Your task to perform on an android device: turn on the 24-hour format for clock Image 0: 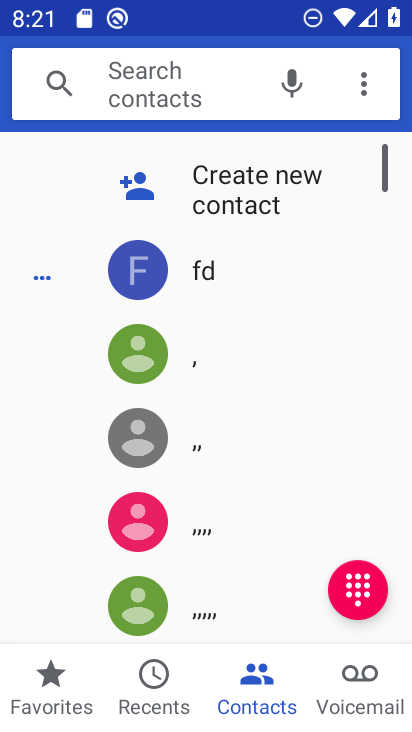
Step 0: press home button
Your task to perform on an android device: turn on the 24-hour format for clock Image 1: 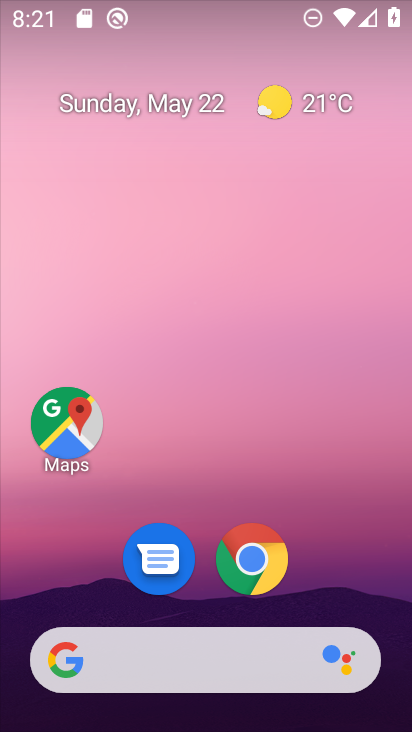
Step 1: drag from (219, 676) to (184, 145)
Your task to perform on an android device: turn on the 24-hour format for clock Image 2: 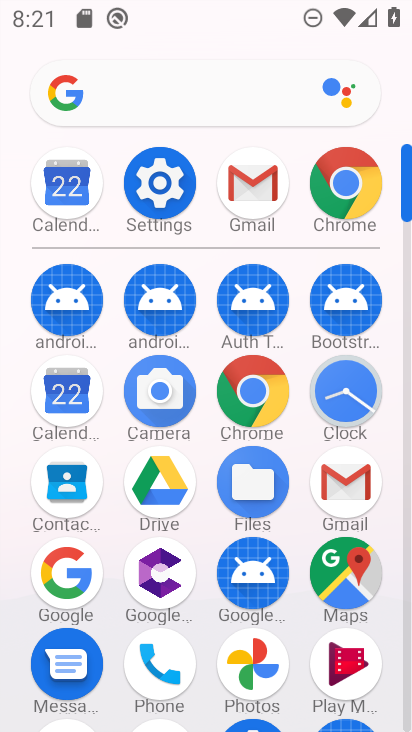
Step 2: click (339, 397)
Your task to perform on an android device: turn on the 24-hour format for clock Image 3: 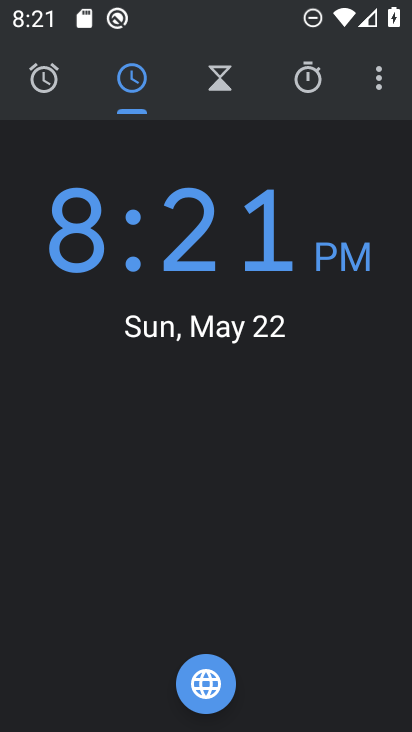
Step 3: click (378, 93)
Your task to perform on an android device: turn on the 24-hour format for clock Image 4: 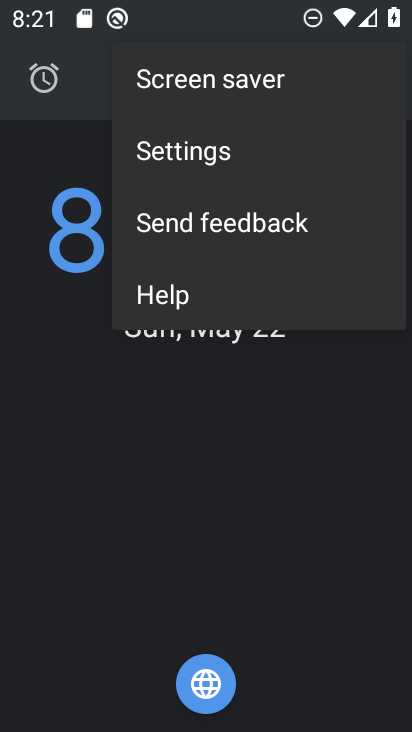
Step 4: click (246, 154)
Your task to perform on an android device: turn on the 24-hour format for clock Image 5: 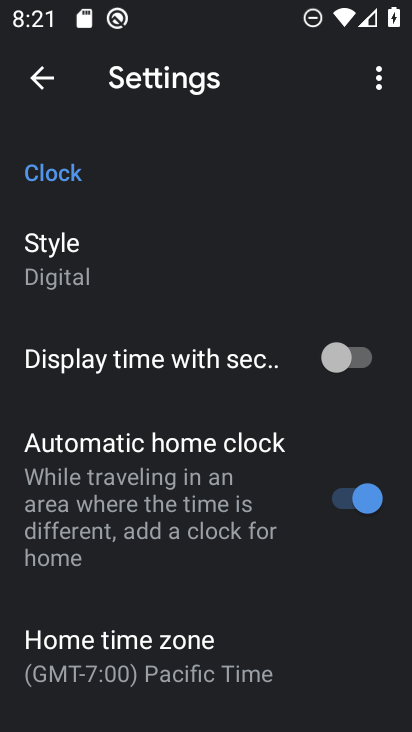
Step 5: drag from (182, 636) to (176, 367)
Your task to perform on an android device: turn on the 24-hour format for clock Image 6: 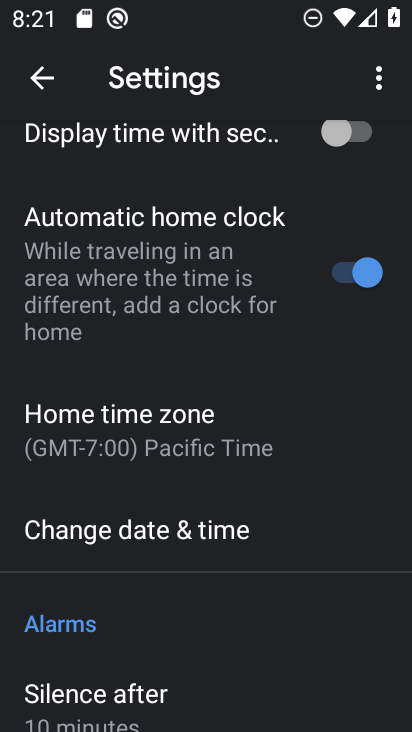
Step 6: click (181, 524)
Your task to perform on an android device: turn on the 24-hour format for clock Image 7: 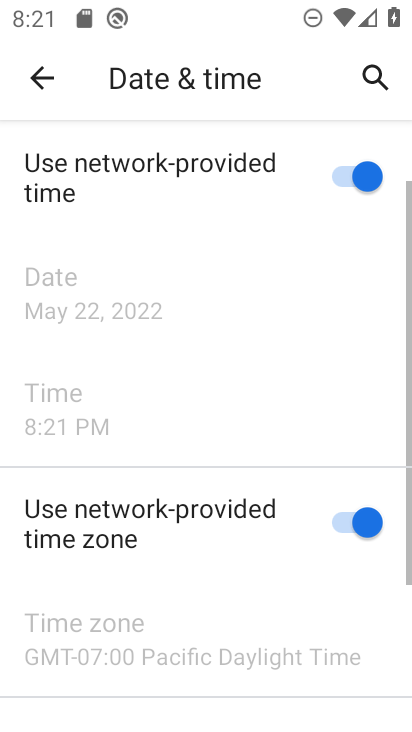
Step 7: drag from (191, 485) to (176, 260)
Your task to perform on an android device: turn on the 24-hour format for clock Image 8: 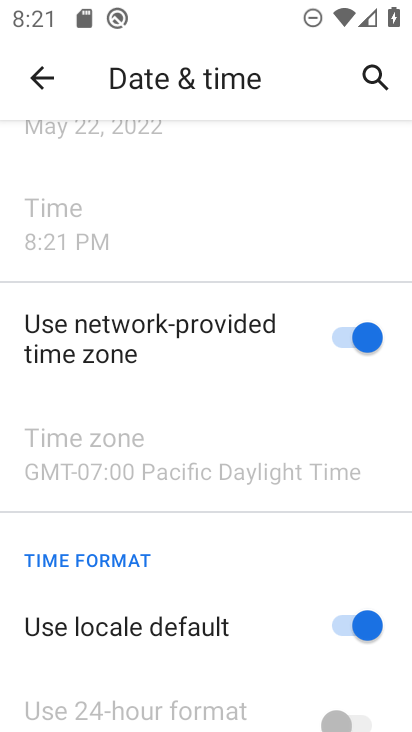
Step 8: drag from (195, 577) to (210, 396)
Your task to perform on an android device: turn on the 24-hour format for clock Image 9: 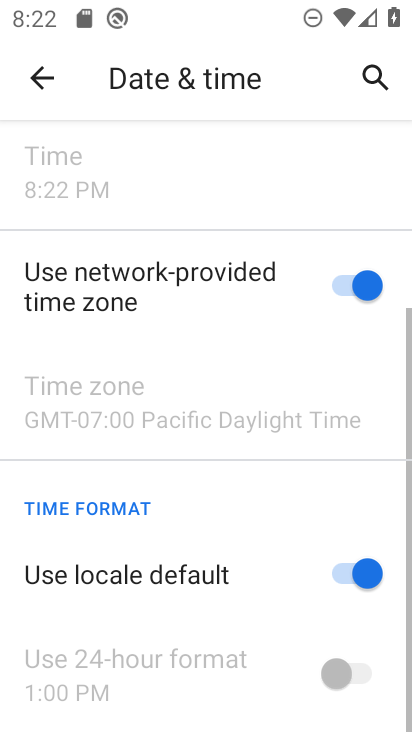
Step 9: click (346, 568)
Your task to perform on an android device: turn on the 24-hour format for clock Image 10: 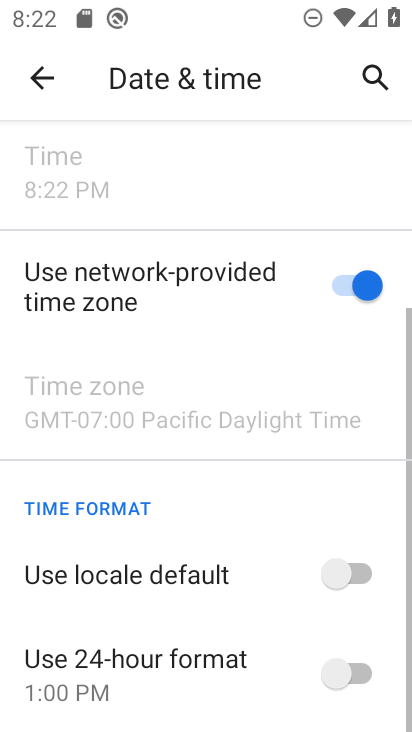
Step 10: click (352, 669)
Your task to perform on an android device: turn on the 24-hour format for clock Image 11: 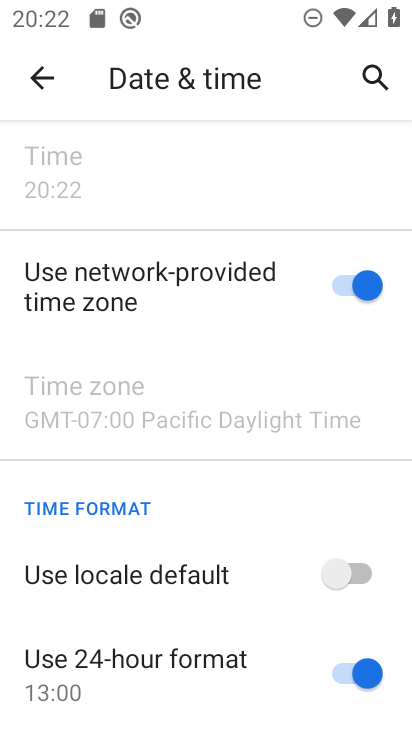
Step 11: task complete